Your task to perform on an android device: turn on priority inbox in the gmail app Image 0: 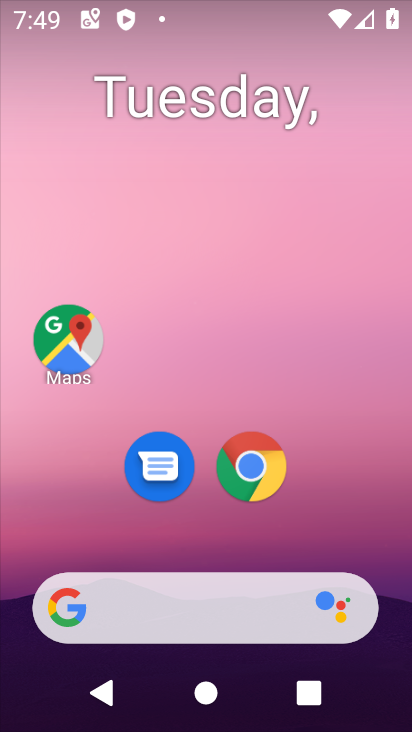
Step 0: press home button
Your task to perform on an android device: turn on priority inbox in the gmail app Image 1: 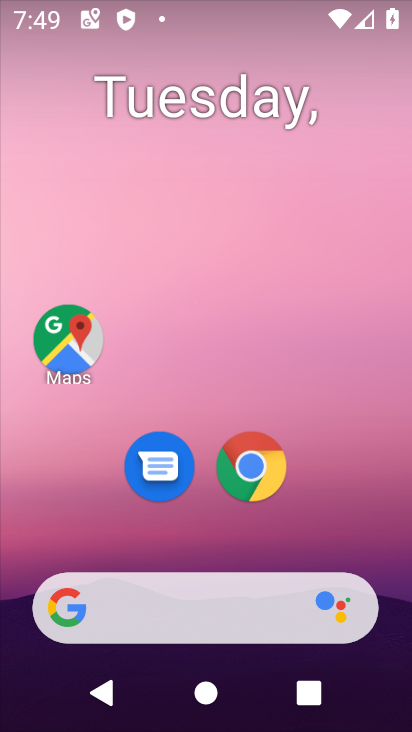
Step 1: drag from (201, 529) to (193, 23)
Your task to perform on an android device: turn on priority inbox in the gmail app Image 2: 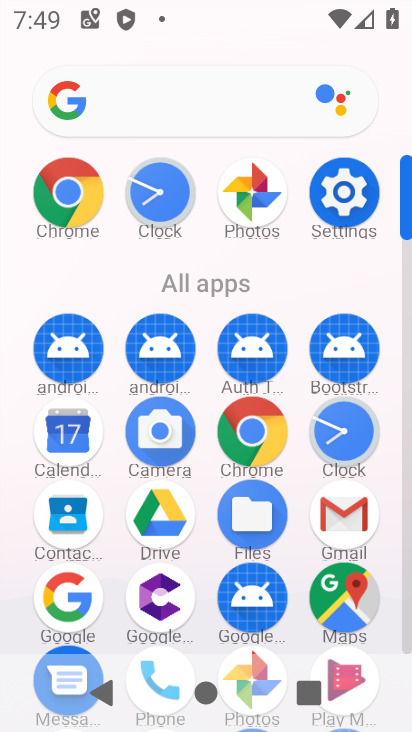
Step 2: click (346, 500)
Your task to perform on an android device: turn on priority inbox in the gmail app Image 3: 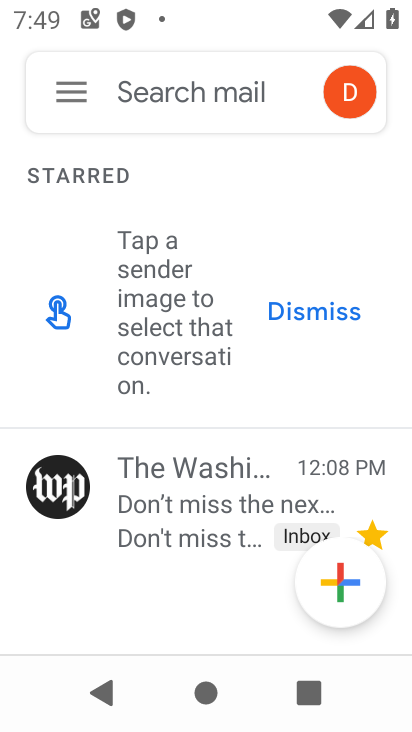
Step 3: click (56, 82)
Your task to perform on an android device: turn on priority inbox in the gmail app Image 4: 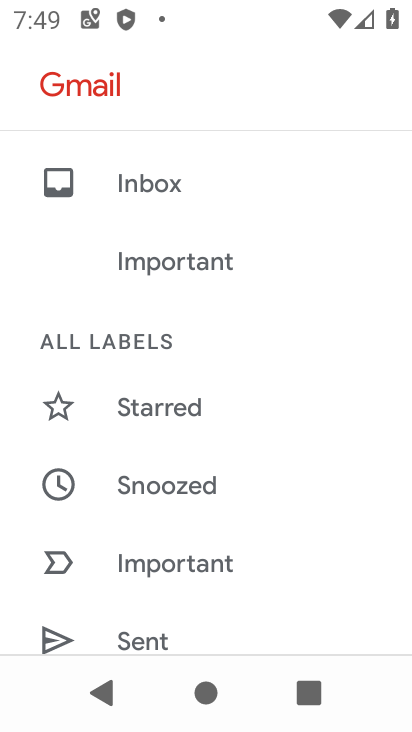
Step 4: drag from (153, 586) to (169, 0)
Your task to perform on an android device: turn on priority inbox in the gmail app Image 5: 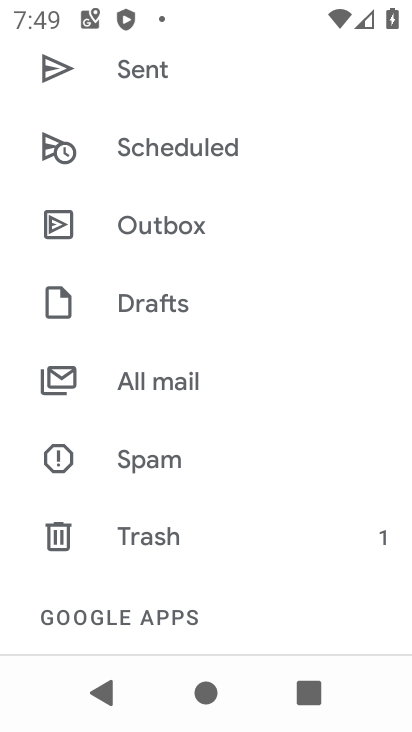
Step 5: drag from (116, 569) to (137, 147)
Your task to perform on an android device: turn on priority inbox in the gmail app Image 6: 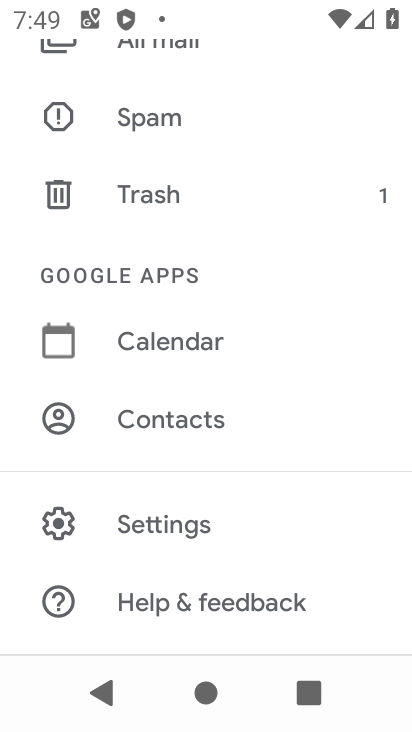
Step 6: click (162, 519)
Your task to perform on an android device: turn on priority inbox in the gmail app Image 7: 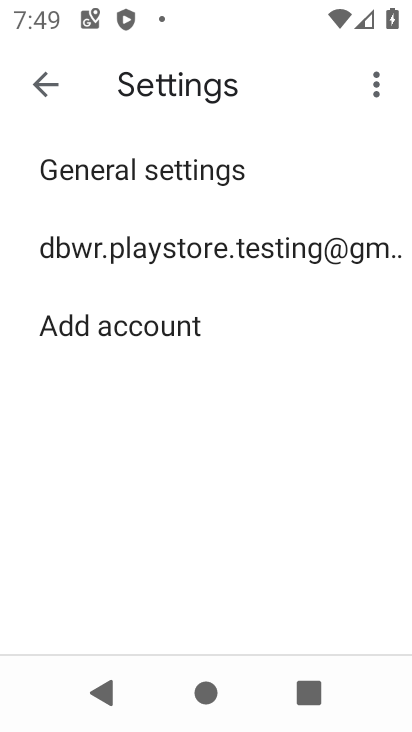
Step 7: click (192, 236)
Your task to perform on an android device: turn on priority inbox in the gmail app Image 8: 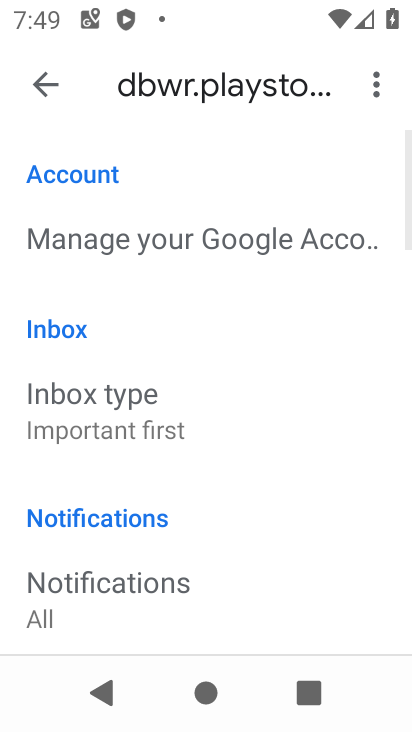
Step 8: click (130, 406)
Your task to perform on an android device: turn on priority inbox in the gmail app Image 9: 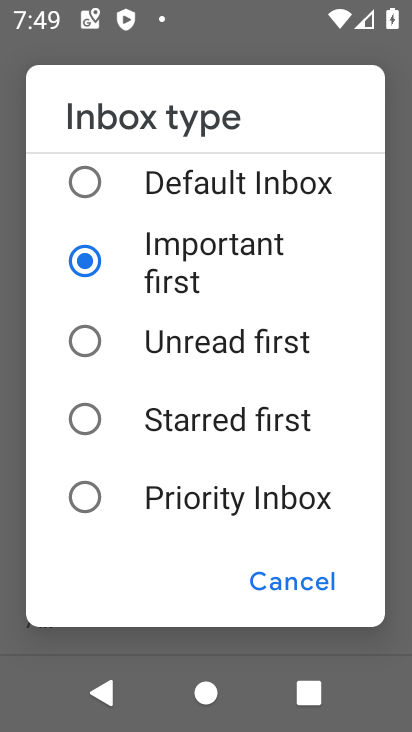
Step 9: click (89, 492)
Your task to perform on an android device: turn on priority inbox in the gmail app Image 10: 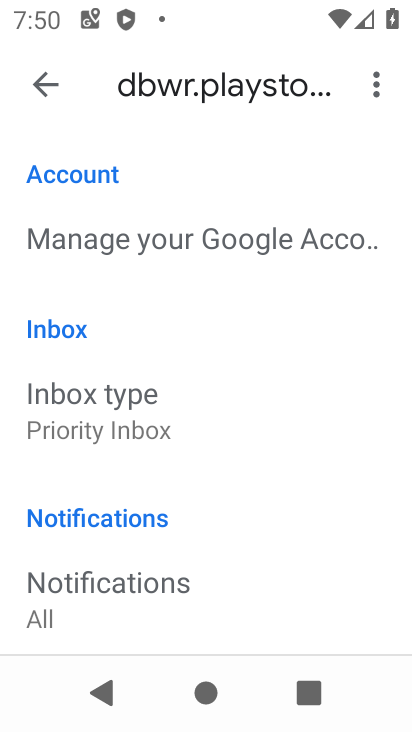
Step 10: task complete